Your task to perform on an android device: Open Google Maps and go to "Timeline" Image 0: 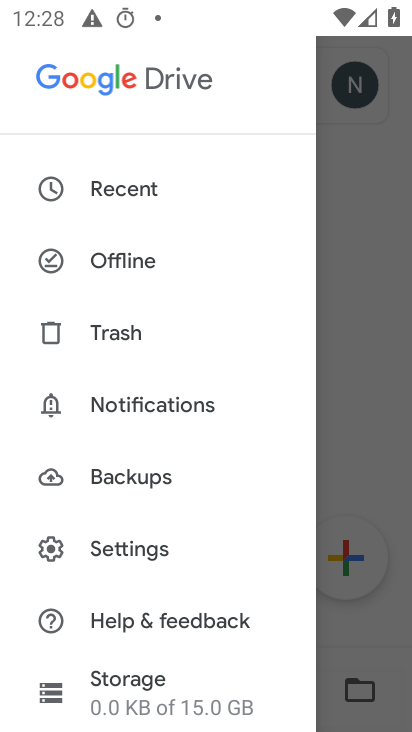
Step 0: press home button
Your task to perform on an android device: Open Google Maps and go to "Timeline" Image 1: 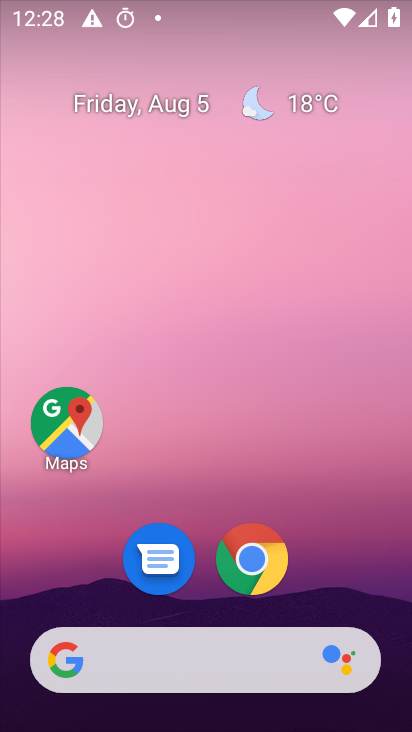
Step 1: click (68, 414)
Your task to perform on an android device: Open Google Maps and go to "Timeline" Image 2: 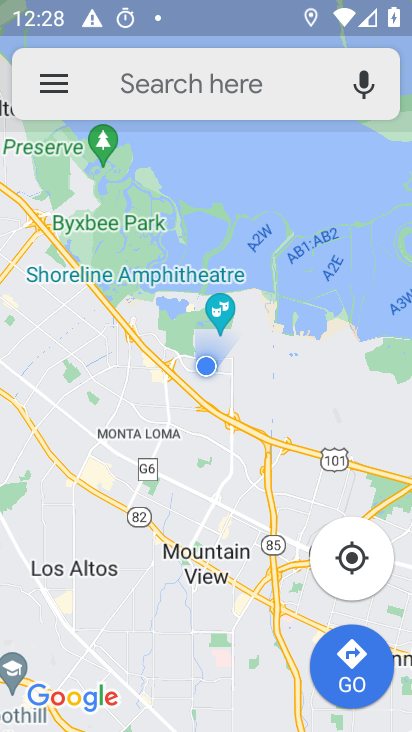
Step 2: click (51, 79)
Your task to perform on an android device: Open Google Maps and go to "Timeline" Image 3: 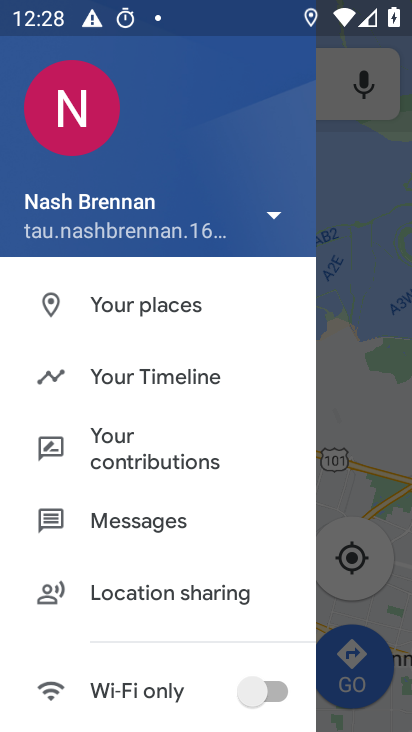
Step 3: click (144, 373)
Your task to perform on an android device: Open Google Maps and go to "Timeline" Image 4: 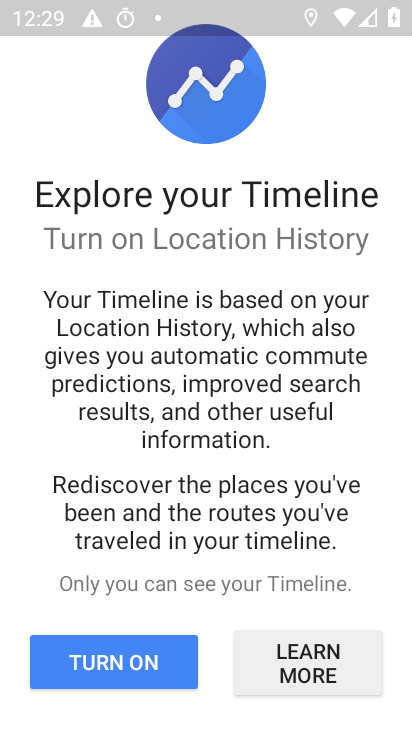
Step 4: click (124, 671)
Your task to perform on an android device: Open Google Maps and go to "Timeline" Image 5: 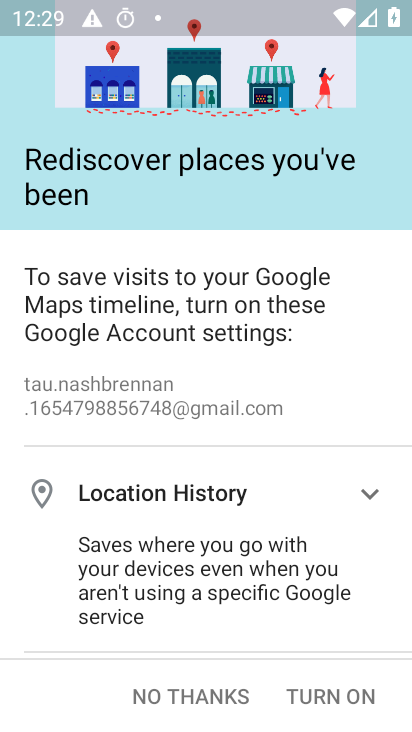
Step 5: task complete